Your task to perform on an android device: What's the weather going to be tomorrow? Image 0: 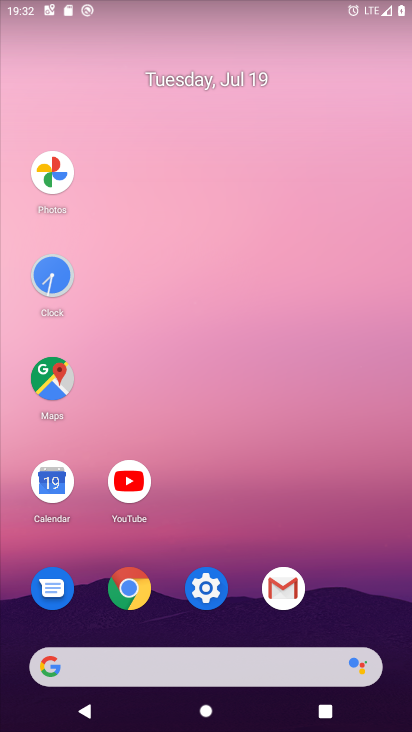
Step 0: click (162, 678)
Your task to perform on an android device: What's the weather going to be tomorrow? Image 1: 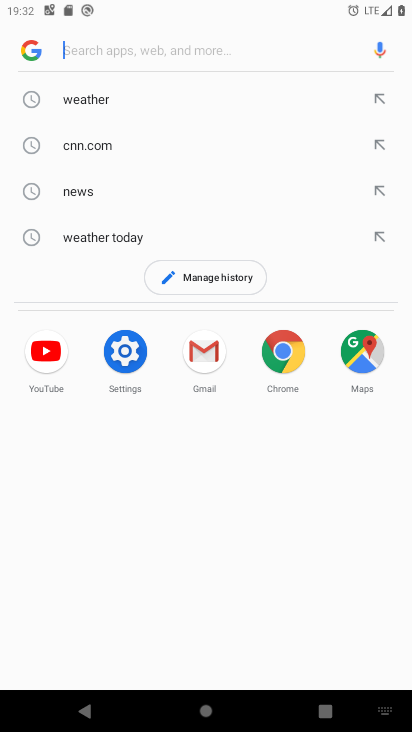
Step 1: click (83, 102)
Your task to perform on an android device: What's the weather going to be tomorrow? Image 2: 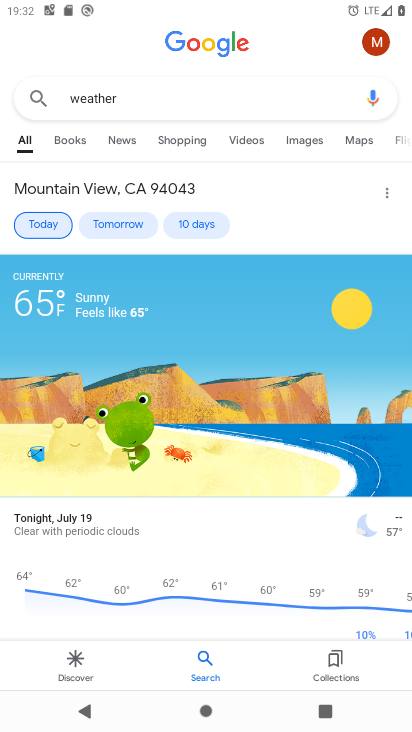
Step 2: click (135, 226)
Your task to perform on an android device: What's the weather going to be tomorrow? Image 3: 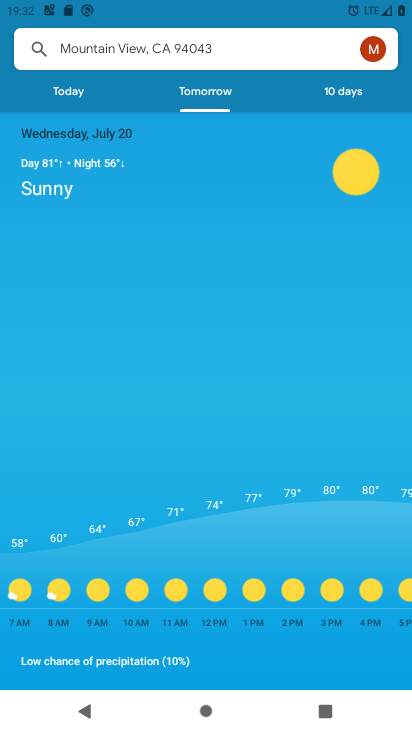
Step 3: task complete